Your task to perform on an android device: change text size in settings app Image 0: 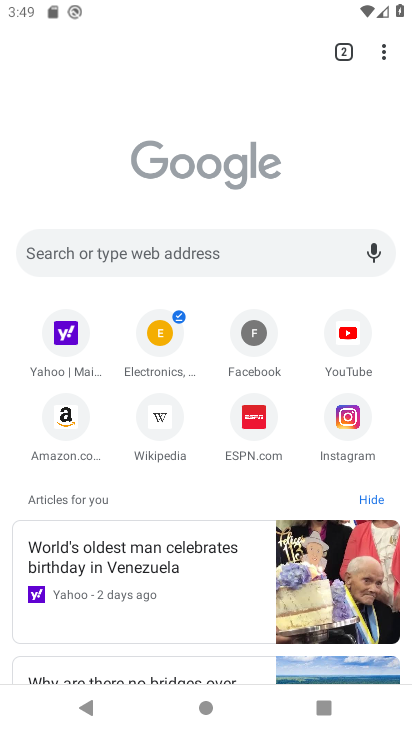
Step 0: press home button
Your task to perform on an android device: change text size in settings app Image 1: 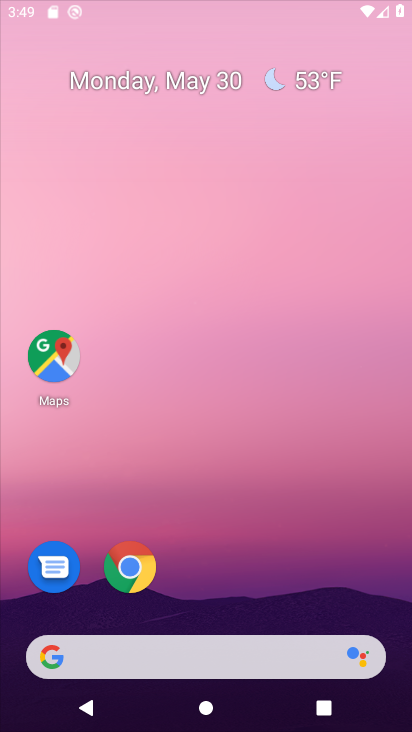
Step 1: drag from (181, 651) to (233, 2)
Your task to perform on an android device: change text size in settings app Image 2: 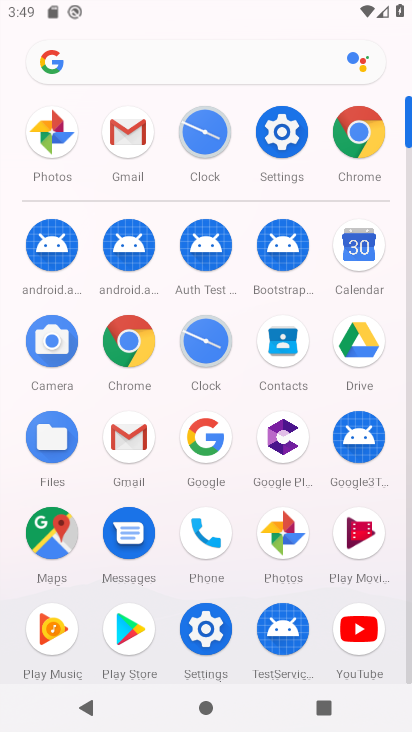
Step 2: click (275, 135)
Your task to perform on an android device: change text size in settings app Image 3: 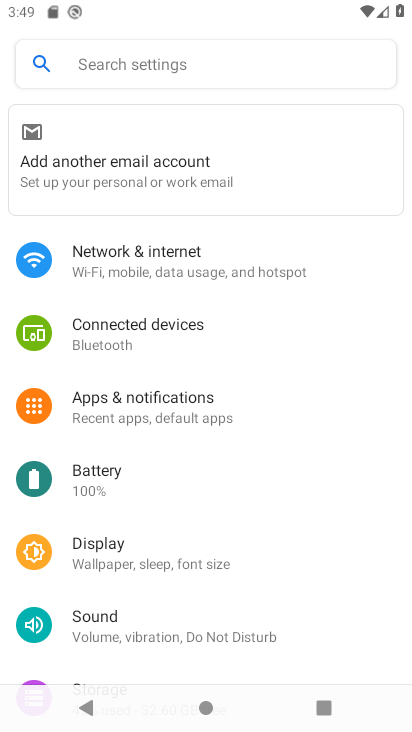
Step 3: drag from (214, 619) to (234, 84)
Your task to perform on an android device: change text size in settings app Image 4: 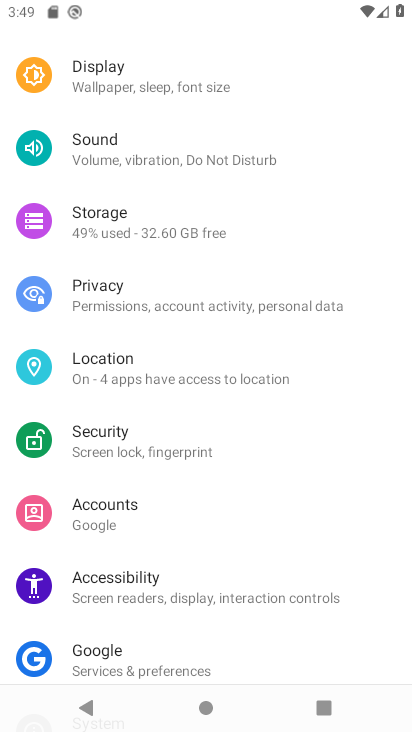
Step 4: click (130, 439)
Your task to perform on an android device: change text size in settings app Image 5: 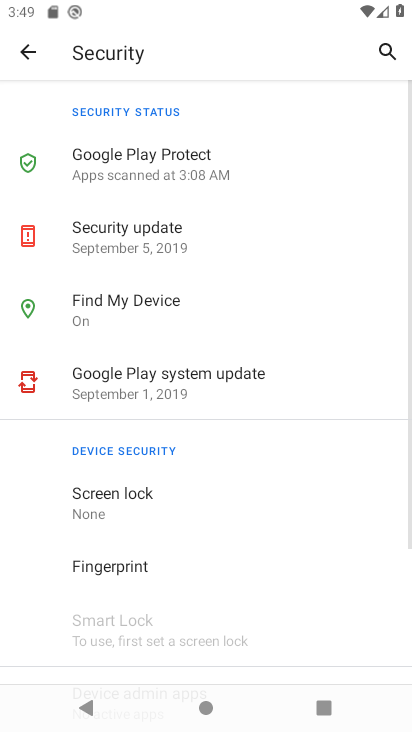
Step 5: press back button
Your task to perform on an android device: change text size in settings app Image 6: 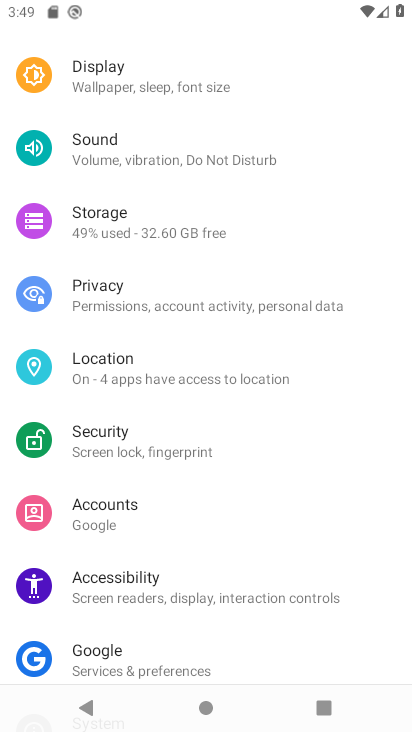
Step 6: click (151, 586)
Your task to perform on an android device: change text size in settings app Image 7: 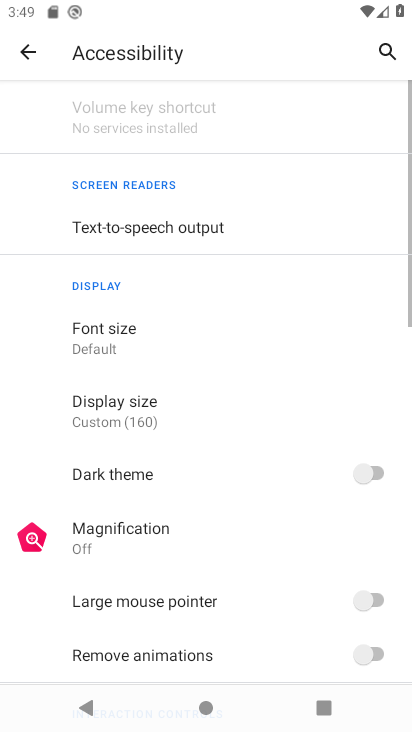
Step 7: click (141, 358)
Your task to perform on an android device: change text size in settings app Image 8: 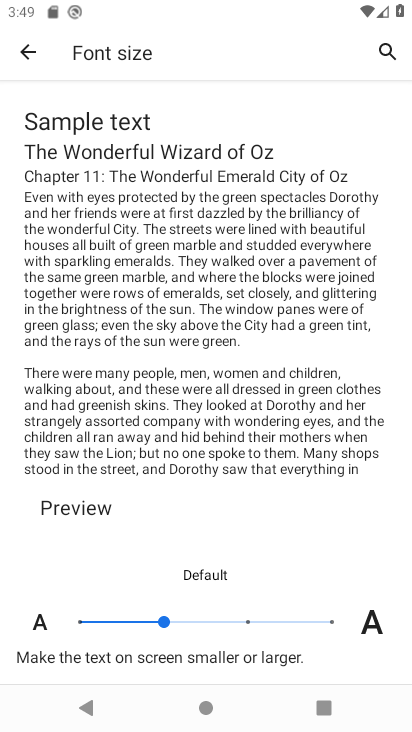
Step 8: click (248, 619)
Your task to perform on an android device: change text size in settings app Image 9: 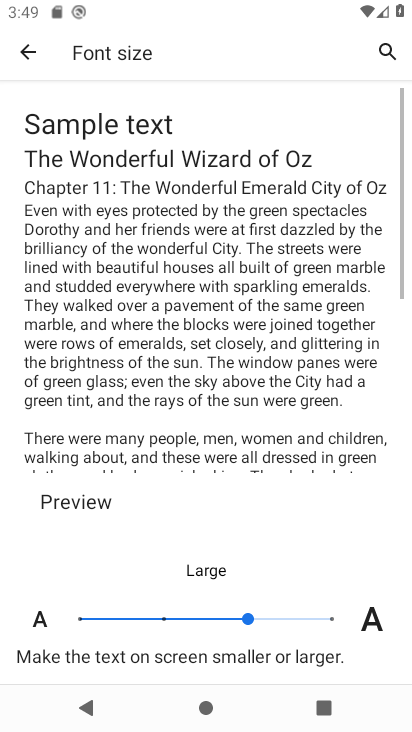
Step 9: task complete